Your task to perform on an android device: Open Google Chrome and click the shortcut for Amazon.com Image 0: 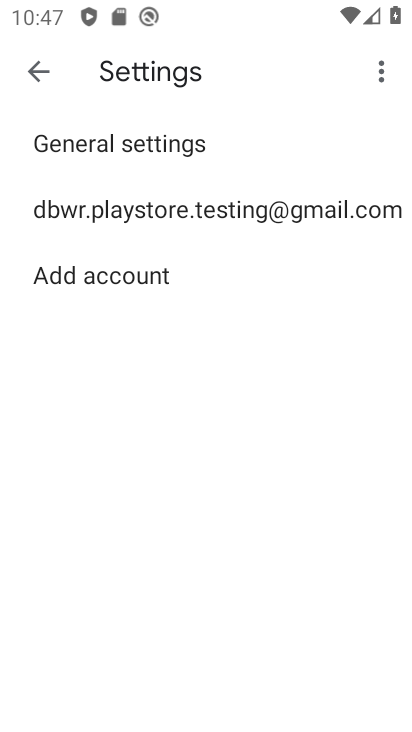
Step 0: task complete